Your task to perform on an android device: Go to internet settings Image 0: 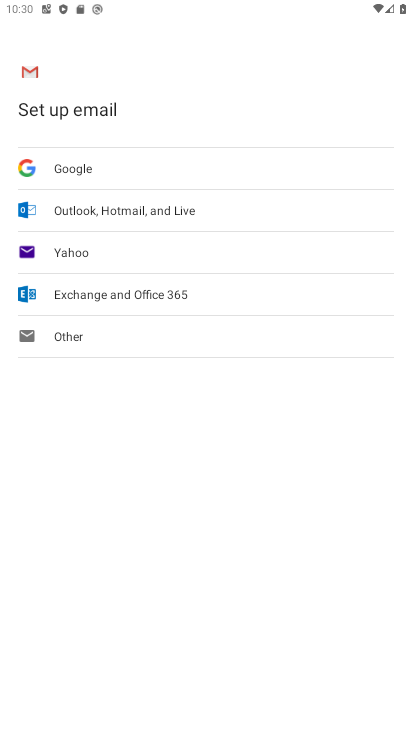
Step 0: press back button
Your task to perform on an android device: Go to internet settings Image 1: 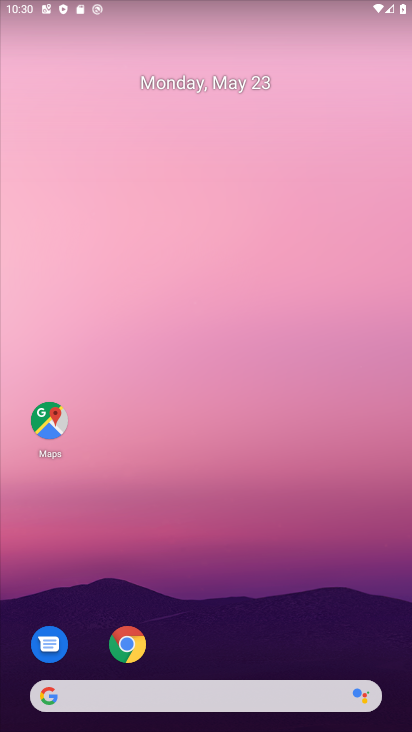
Step 1: drag from (242, 612) to (119, 125)
Your task to perform on an android device: Go to internet settings Image 2: 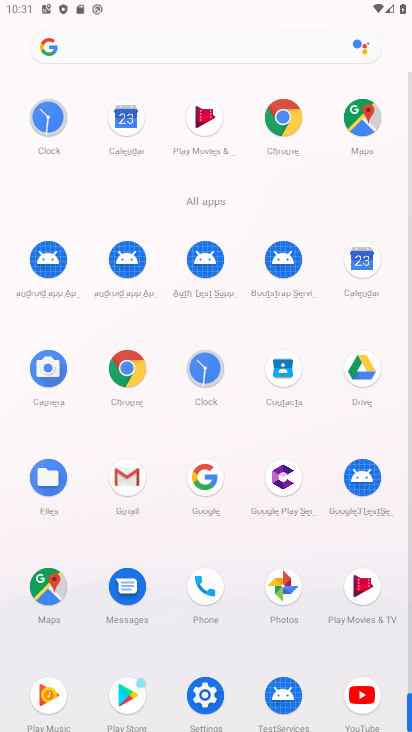
Step 2: click (209, 683)
Your task to perform on an android device: Go to internet settings Image 3: 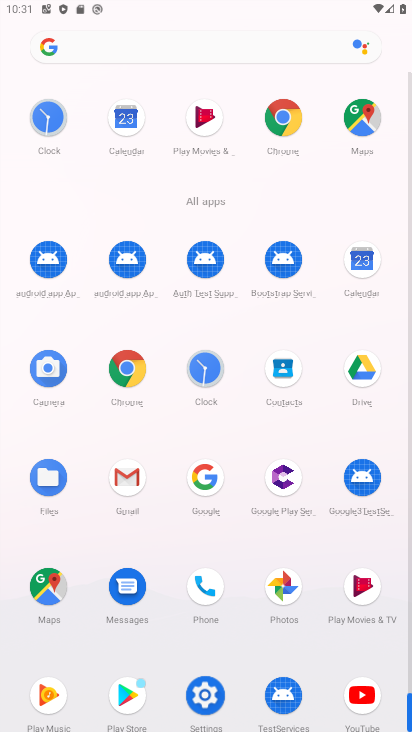
Step 3: click (209, 685)
Your task to perform on an android device: Go to internet settings Image 4: 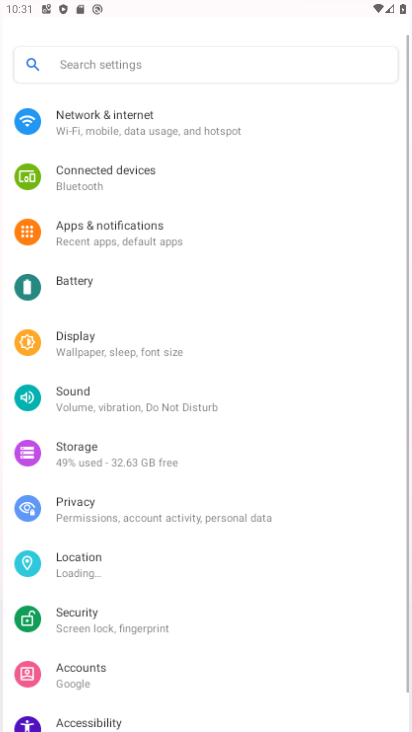
Step 4: click (206, 692)
Your task to perform on an android device: Go to internet settings Image 5: 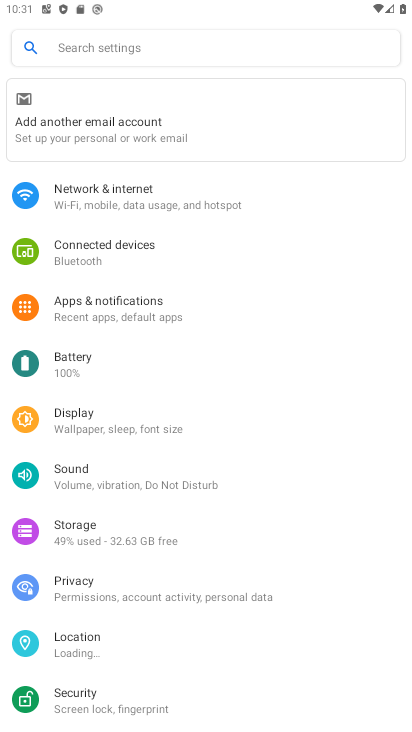
Step 5: click (131, 186)
Your task to perform on an android device: Go to internet settings Image 6: 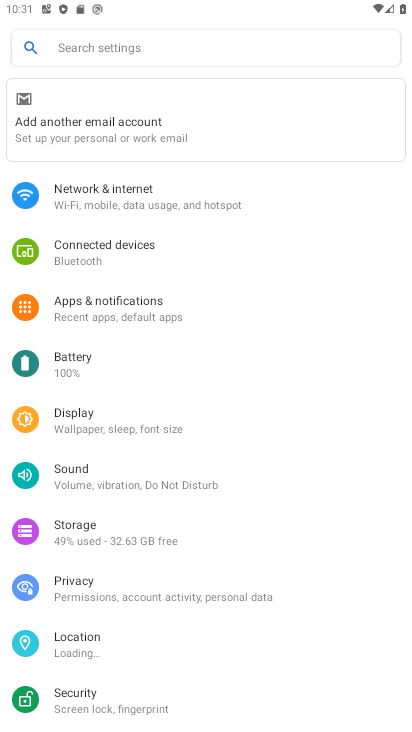
Step 6: click (131, 193)
Your task to perform on an android device: Go to internet settings Image 7: 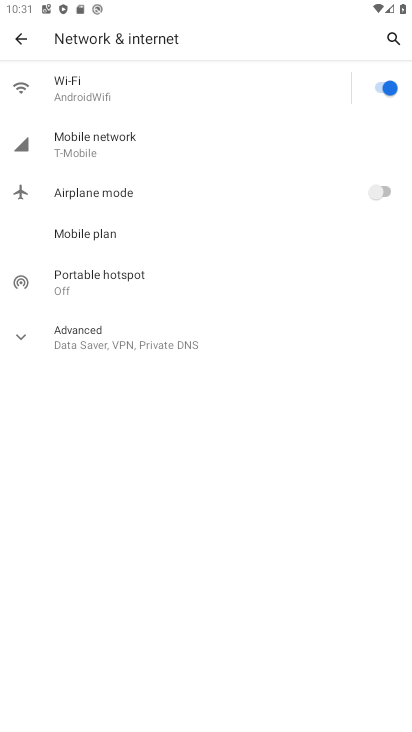
Step 7: task complete